Your task to perform on an android device: Show me recent news Image 0: 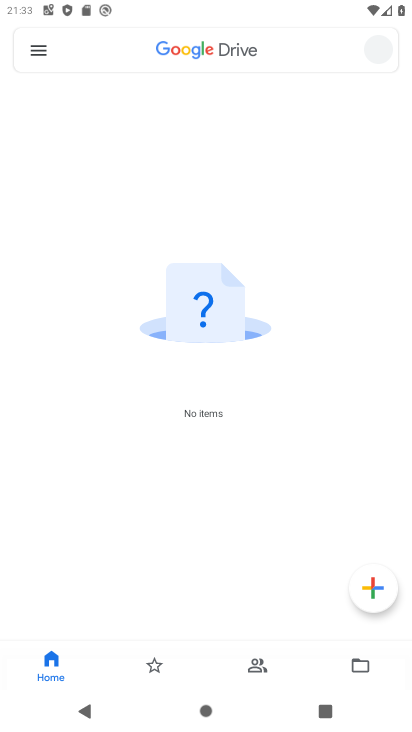
Step 0: click (43, 273)
Your task to perform on an android device: Show me recent news Image 1: 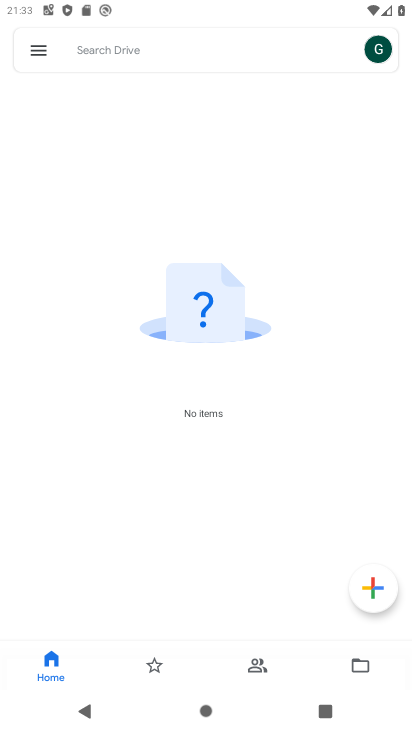
Step 1: press home button
Your task to perform on an android device: Show me recent news Image 2: 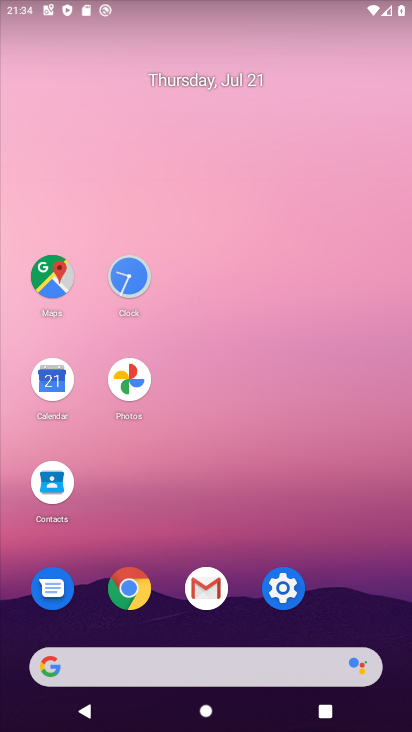
Step 2: drag from (11, 183) to (373, 183)
Your task to perform on an android device: Show me recent news Image 3: 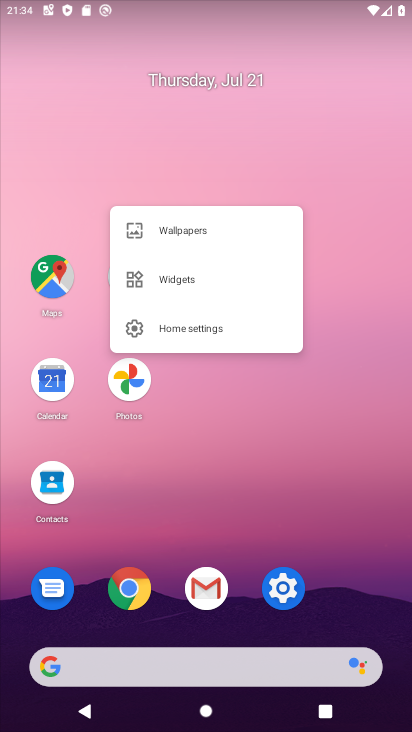
Step 3: click (373, 183)
Your task to perform on an android device: Show me recent news Image 4: 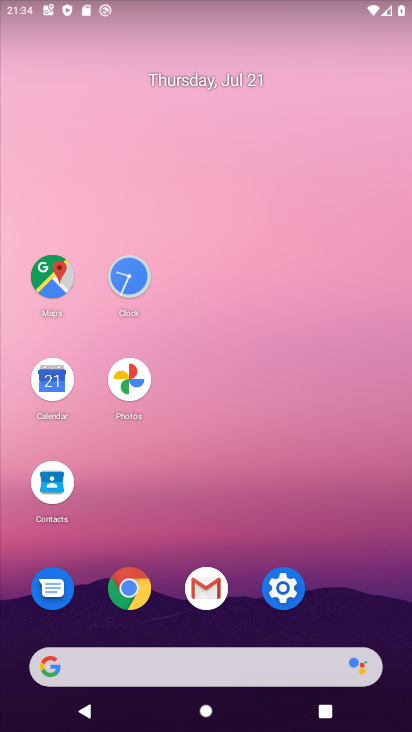
Step 4: task complete